Your task to perform on an android device: turn on sleep mode Image 0: 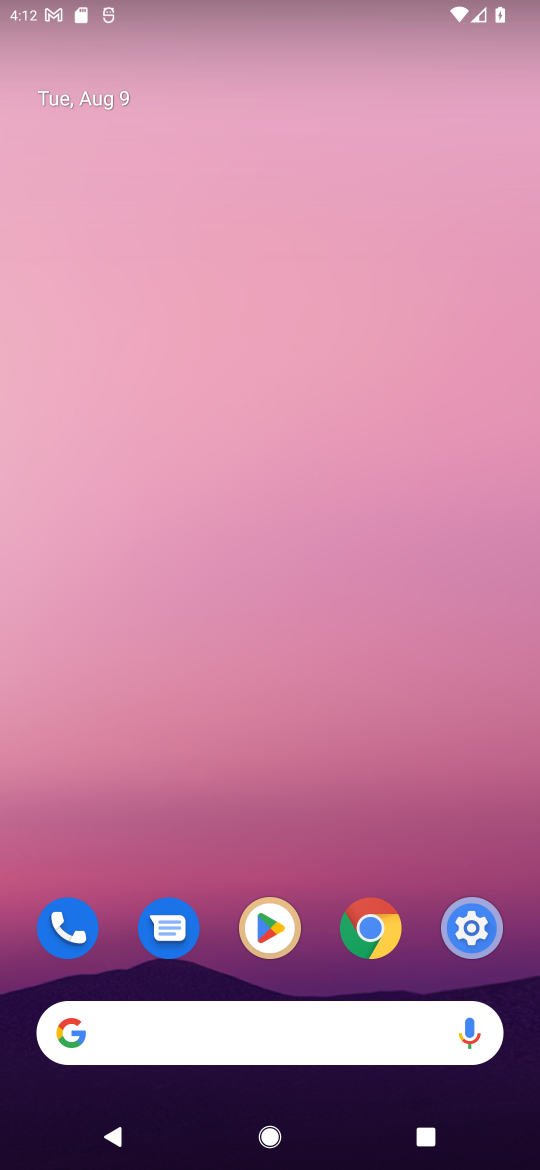
Step 0: click (463, 933)
Your task to perform on an android device: turn on sleep mode Image 1: 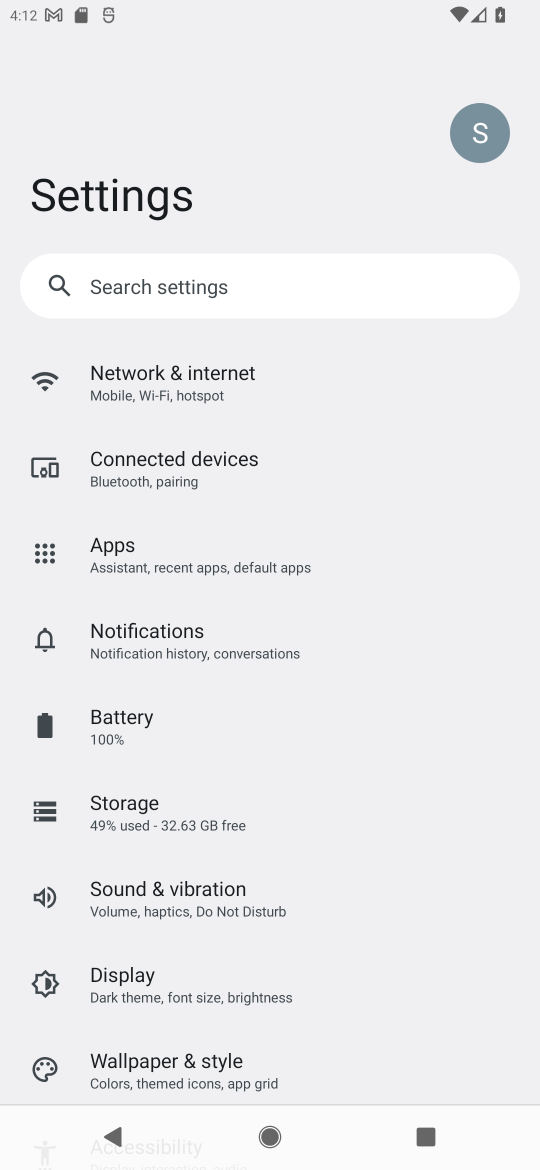
Step 1: click (172, 973)
Your task to perform on an android device: turn on sleep mode Image 2: 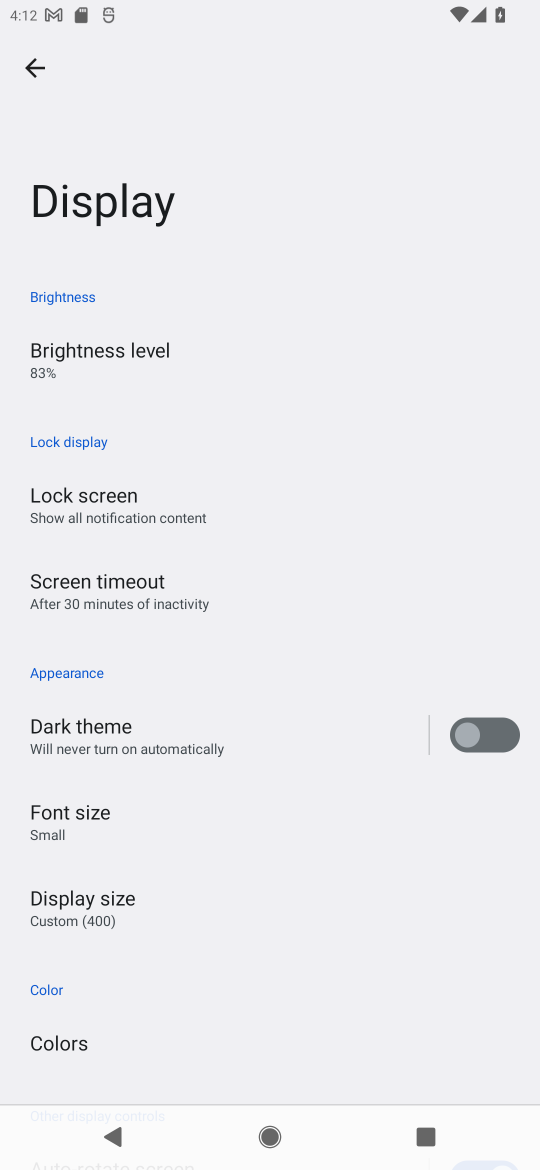
Step 2: task complete